Your task to perform on an android device: Is it going to rain this weekend? Image 0: 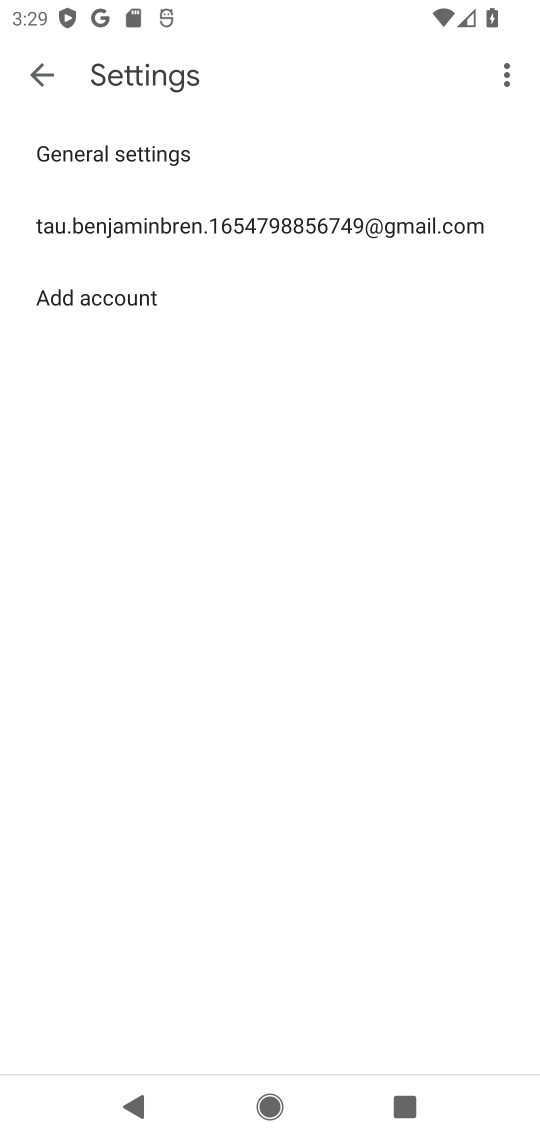
Step 0: press home button
Your task to perform on an android device: Is it going to rain this weekend? Image 1: 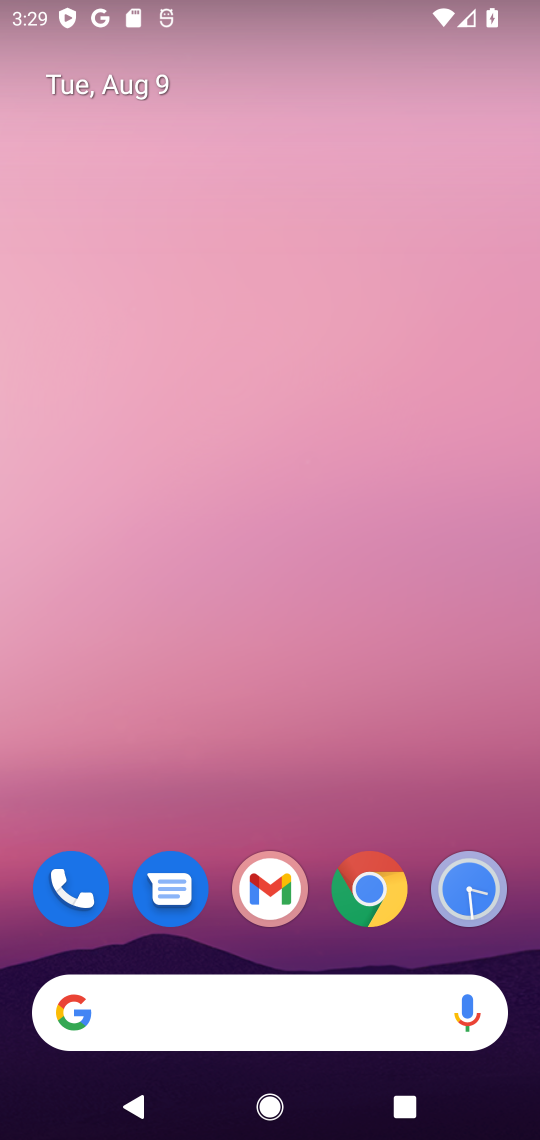
Step 1: click (281, 1024)
Your task to perform on an android device: Is it going to rain this weekend? Image 2: 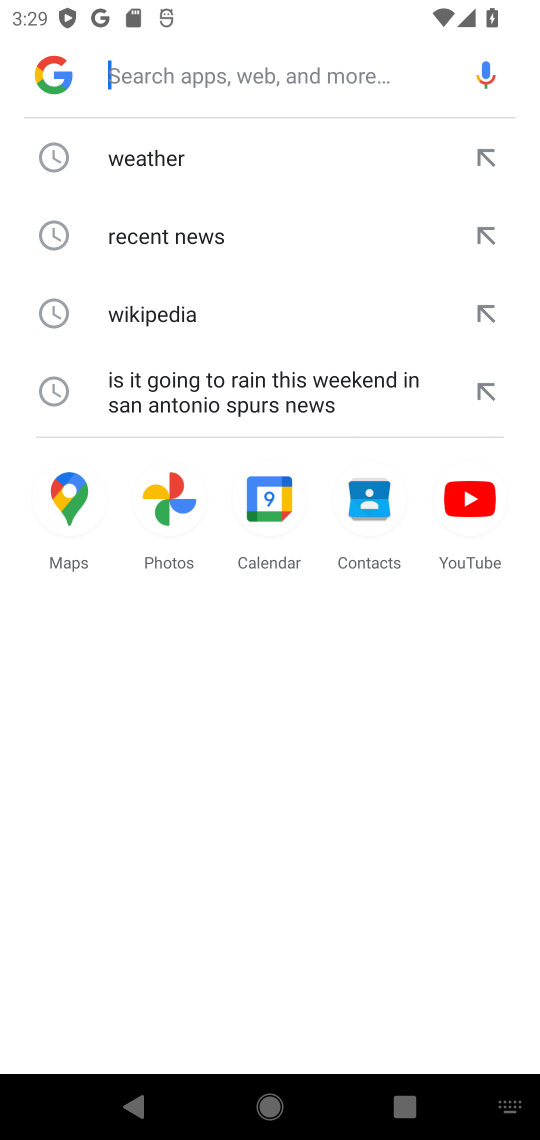
Step 2: click (156, 155)
Your task to perform on an android device: Is it going to rain this weekend? Image 3: 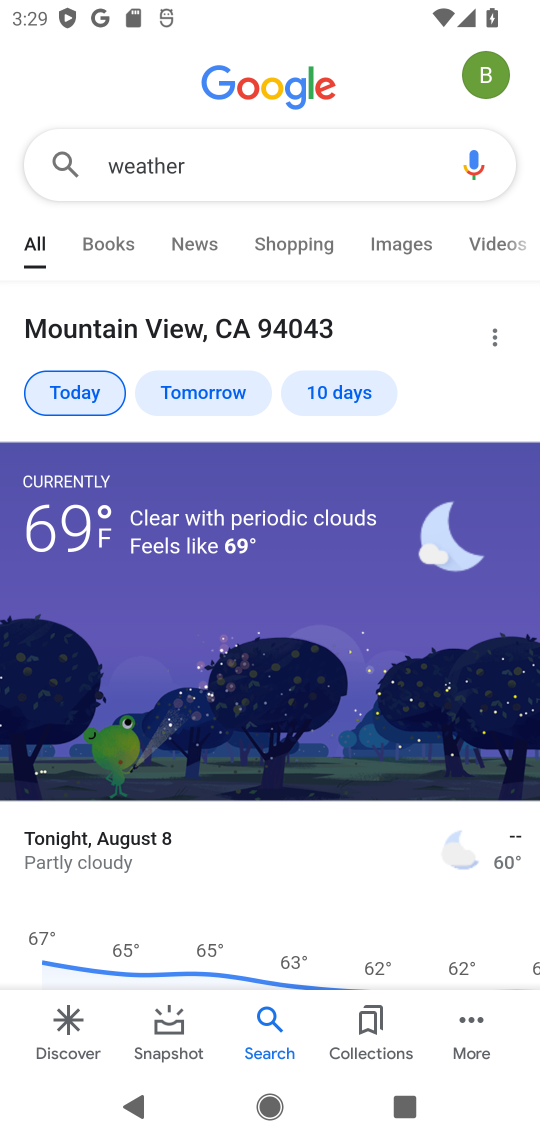
Step 3: click (342, 388)
Your task to perform on an android device: Is it going to rain this weekend? Image 4: 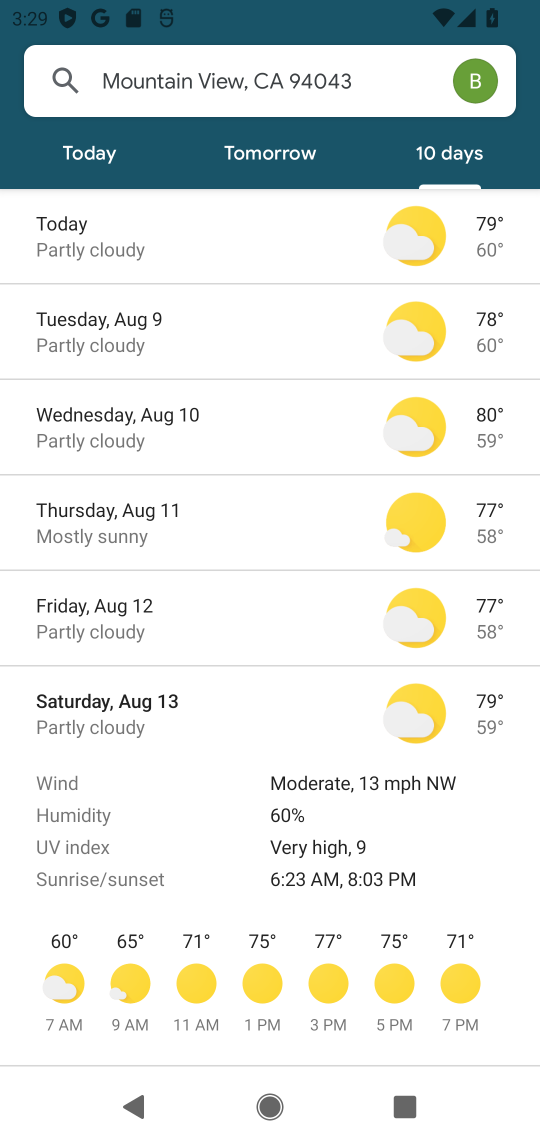
Step 4: task complete